Your task to perform on an android device: Go to accessibility settings Image 0: 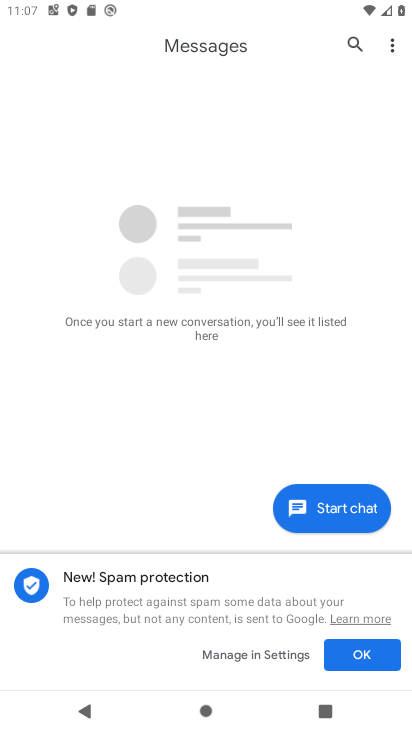
Step 0: press home button
Your task to perform on an android device: Go to accessibility settings Image 1: 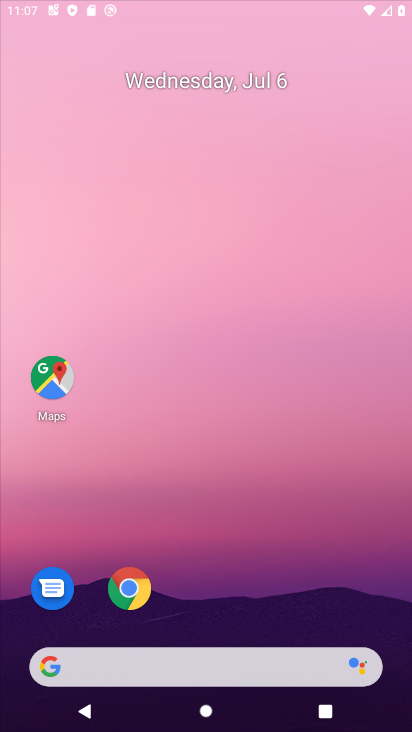
Step 1: drag from (196, 635) to (178, 271)
Your task to perform on an android device: Go to accessibility settings Image 2: 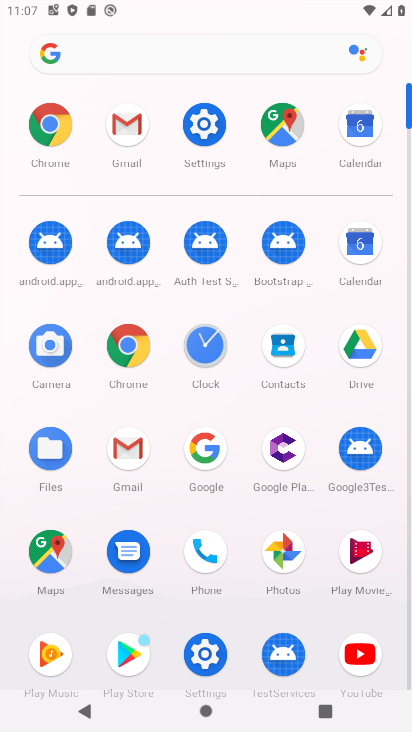
Step 2: click (195, 116)
Your task to perform on an android device: Go to accessibility settings Image 3: 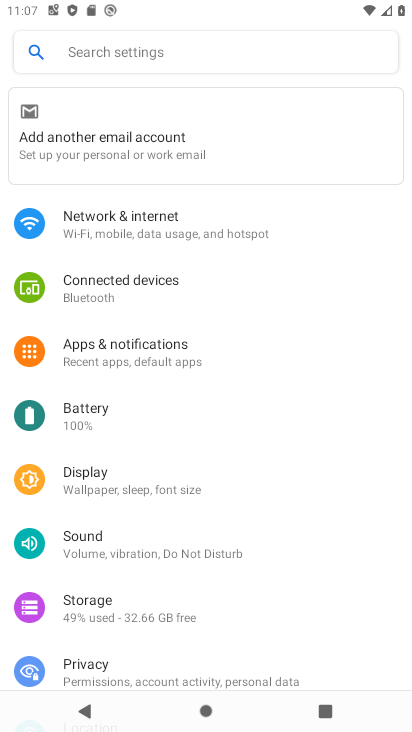
Step 3: drag from (125, 628) to (187, 243)
Your task to perform on an android device: Go to accessibility settings Image 4: 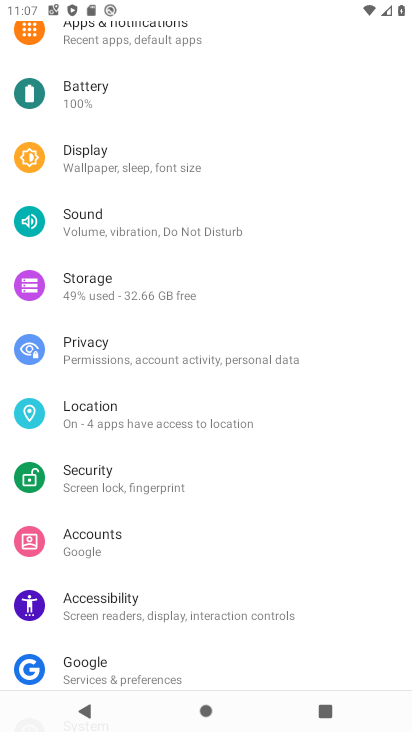
Step 4: click (110, 602)
Your task to perform on an android device: Go to accessibility settings Image 5: 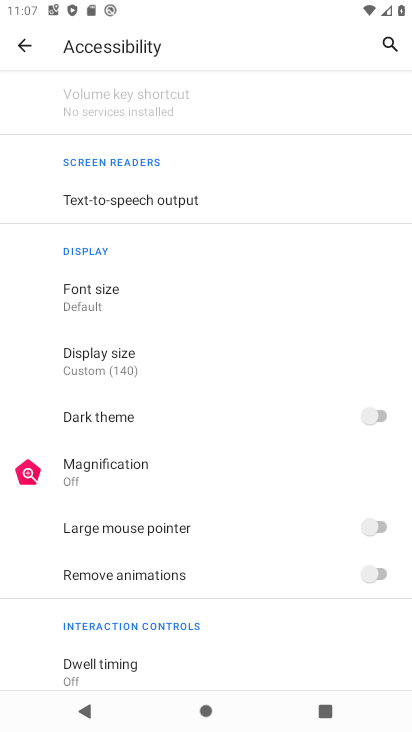
Step 5: task complete